Your task to perform on an android device: toggle wifi Image 0: 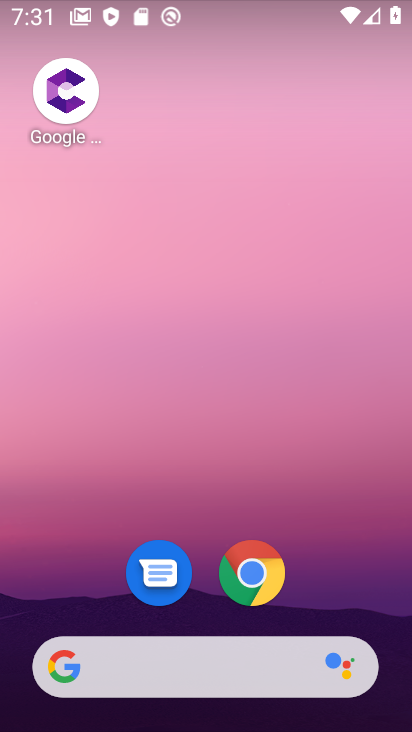
Step 0: drag from (319, 338) to (302, 68)
Your task to perform on an android device: toggle wifi Image 1: 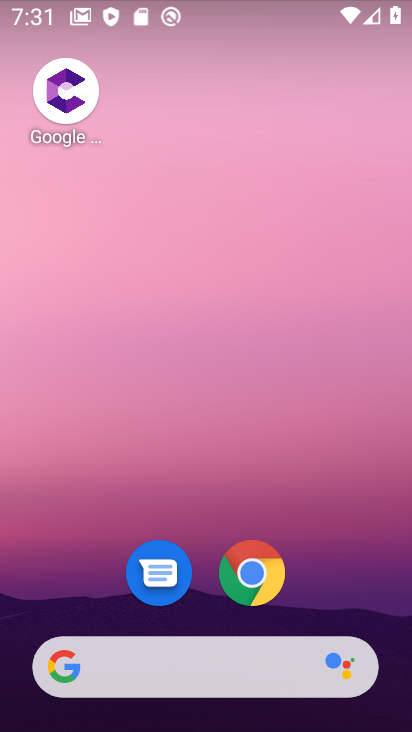
Step 1: drag from (209, 602) to (263, 170)
Your task to perform on an android device: toggle wifi Image 2: 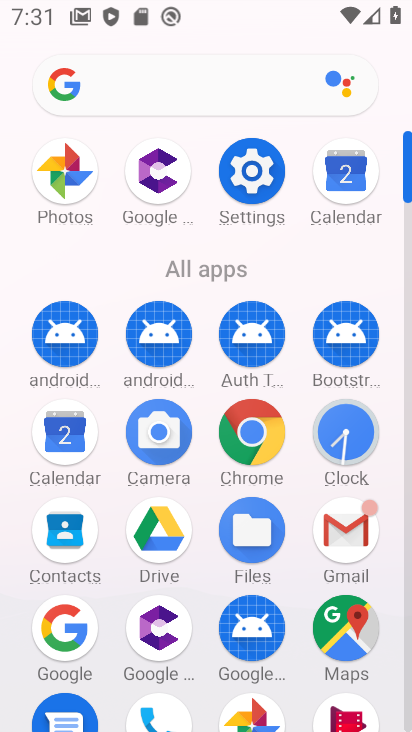
Step 2: click (238, 163)
Your task to perform on an android device: toggle wifi Image 3: 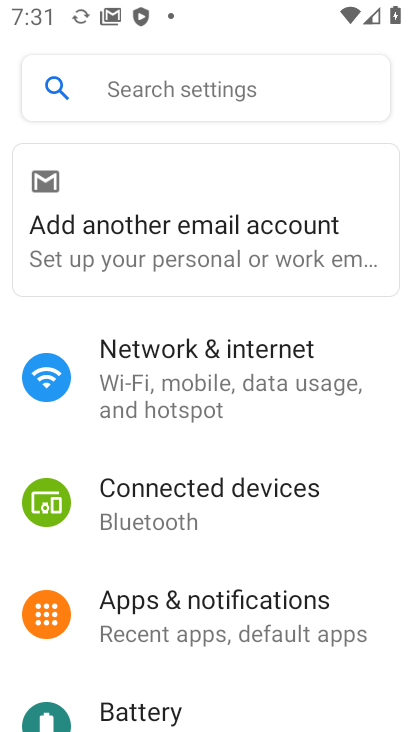
Step 3: click (206, 394)
Your task to perform on an android device: toggle wifi Image 4: 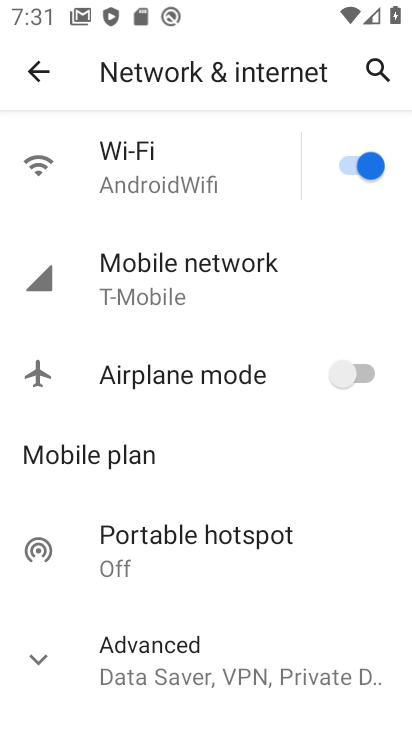
Step 4: click (336, 160)
Your task to perform on an android device: toggle wifi Image 5: 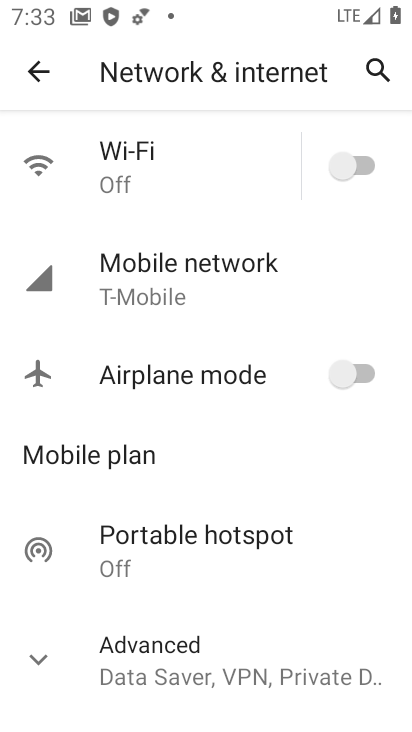
Step 5: task complete